Your task to perform on an android device: Go to display settings Image 0: 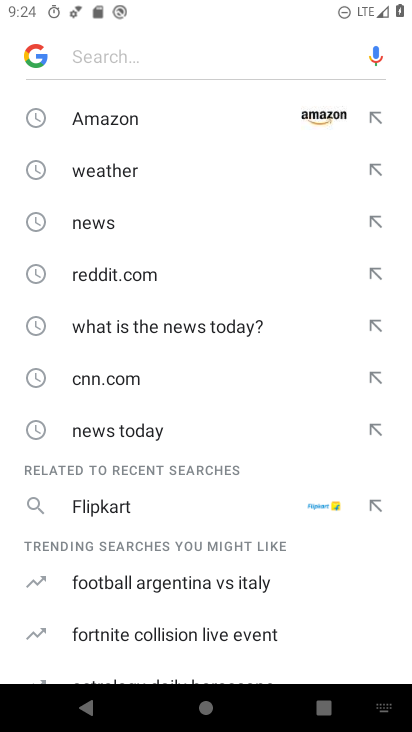
Step 0: press home button
Your task to perform on an android device: Go to display settings Image 1: 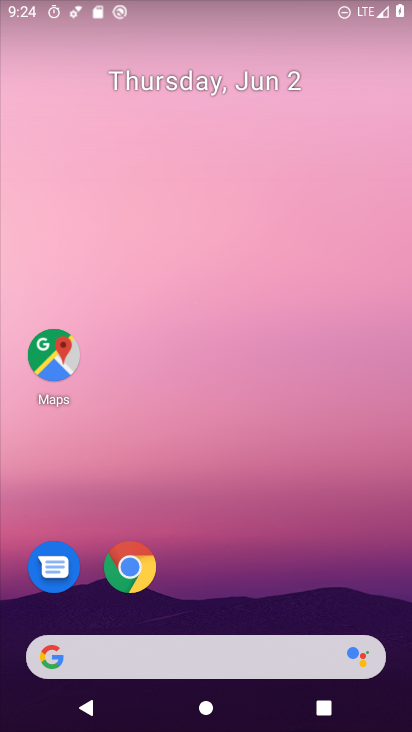
Step 1: drag from (352, 571) to (353, 130)
Your task to perform on an android device: Go to display settings Image 2: 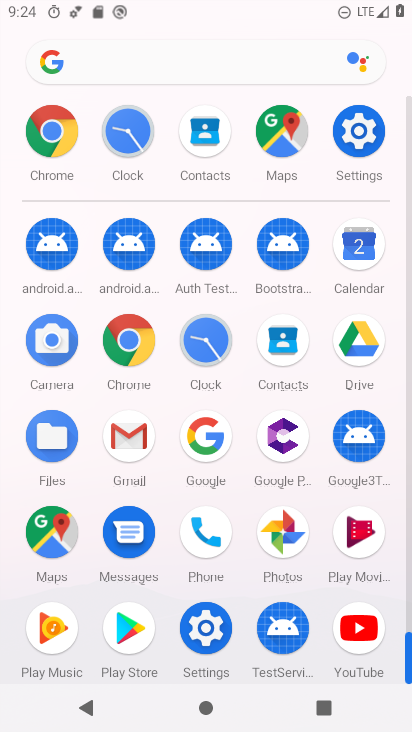
Step 2: click (207, 626)
Your task to perform on an android device: Go to display settings Image 3: 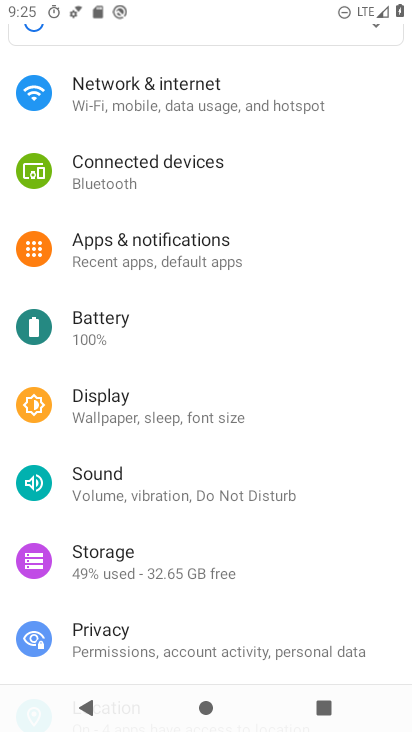
Step 3: click (151, 412)
Your task to perform on an android device: Go to display settings Image 4: 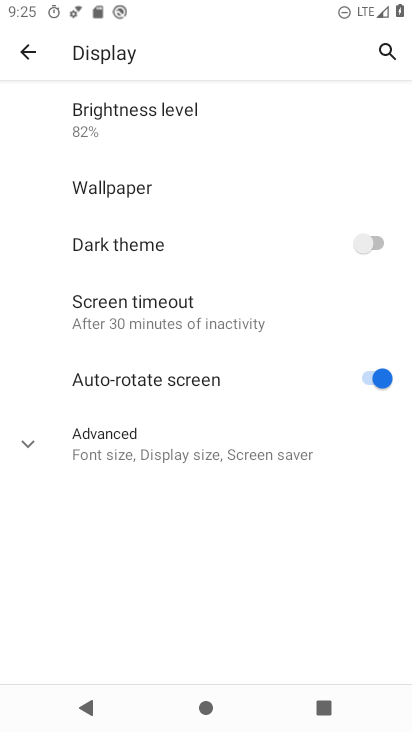
Step 4: task complete